Your task to perform on an android device: find photos in the google photos app Image 0: 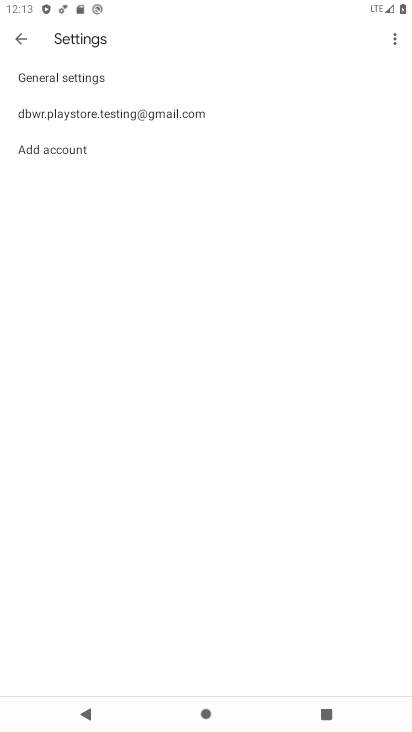
Step 0: press home button
Your task to perform on an android device: find photos in the google photos app Image 1: 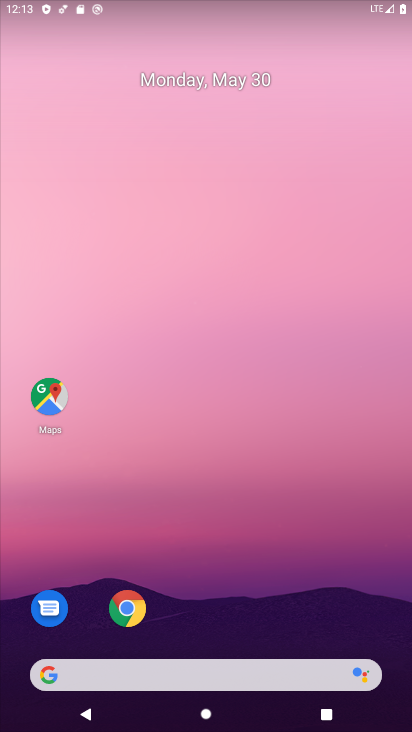
Step 1: drag from (220, 641) to (227, 202)
Your task to perform on an android device: find photos in the google photos app Image 2: 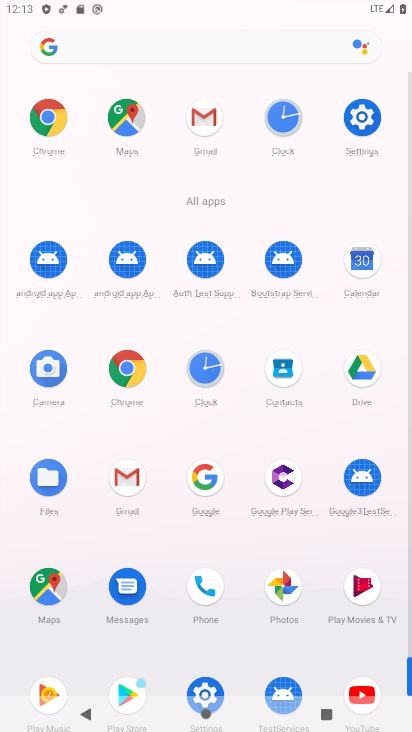
Step 2: click (282, 592)
Your task to perform on an android device: find photos in the google photos app Image 3: 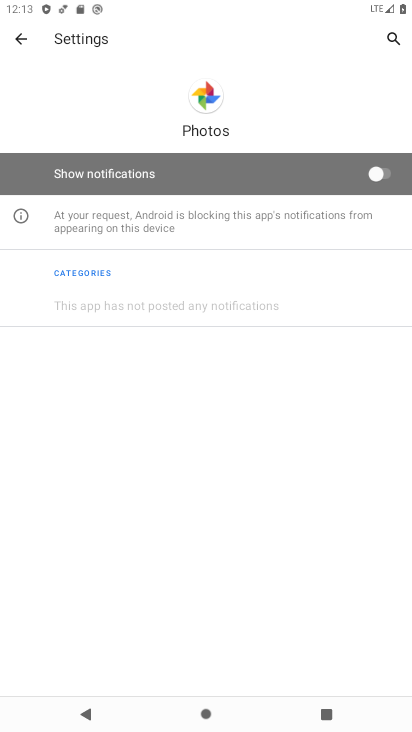
Step 3: click (8, 35)
Your task to perform on an android device: find photos in the google photos app Image 4: 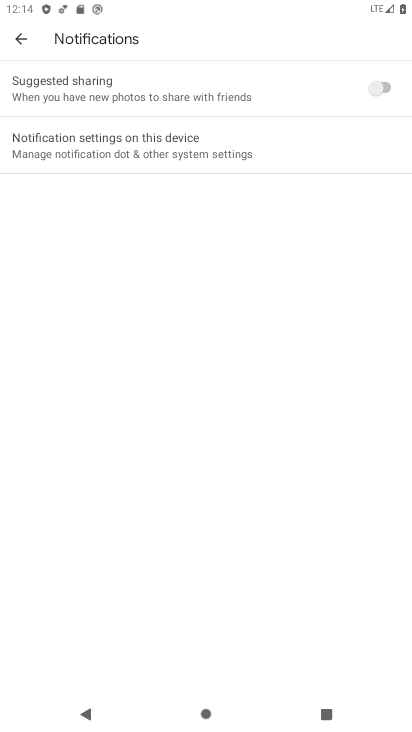
Step 4: click (29, 45)
Your task to perform on an android device: find photos in the google photos app Image 5: 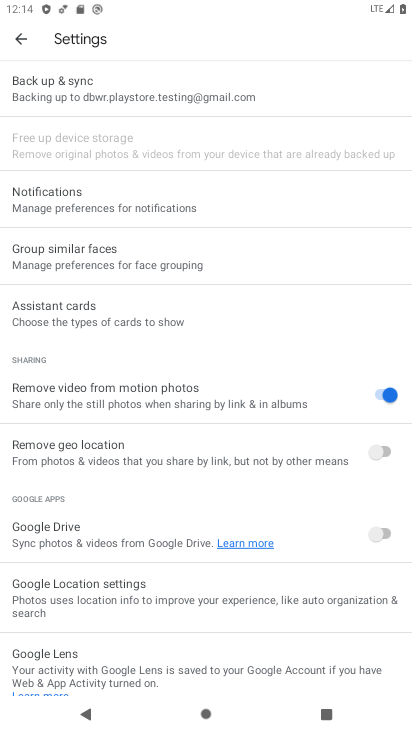
Step 5: click (21, 36)
Your task to perform on an android device: find photos in the google photos app Image 6: 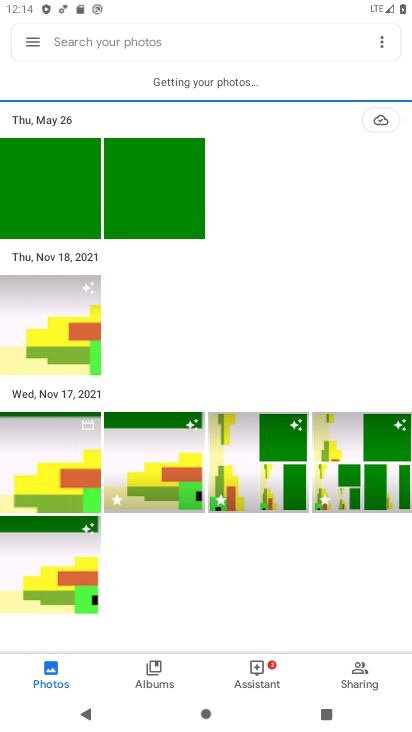
Step 6: task complete